Your task to perform on an android device: change alarm snooze length Image 0: 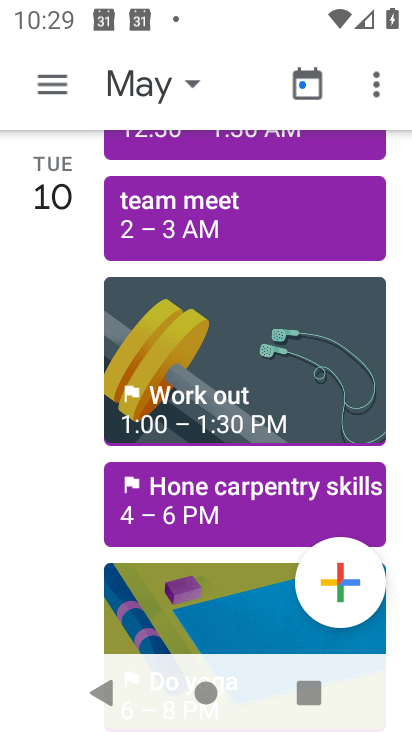
Step 0: press back button
Your task to perform on an android device: change alarm snooze length Image 1: 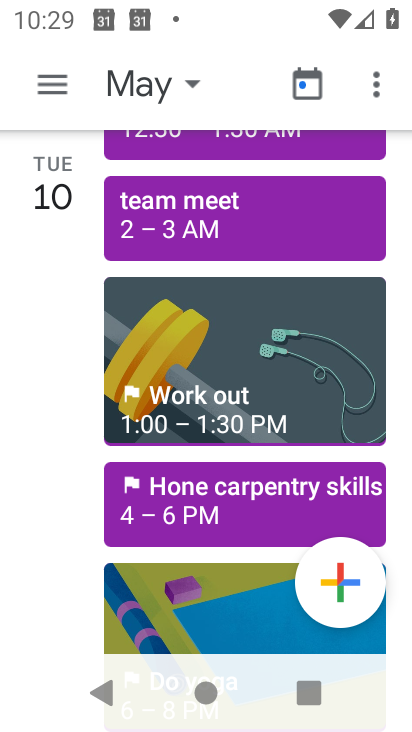
Step 1: press back button
Your task to perform on an android device: change alarm snooze length Image 2: 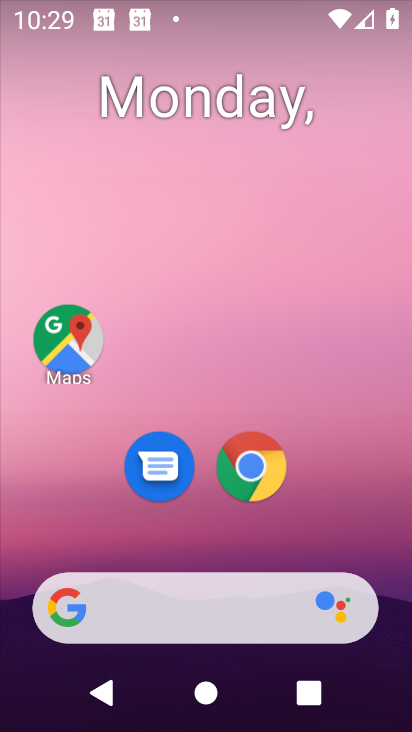
Step 2: drag from (362, 550) to (139, 10)
Your task to perform on an android device: change alarm snooze length Image 3: 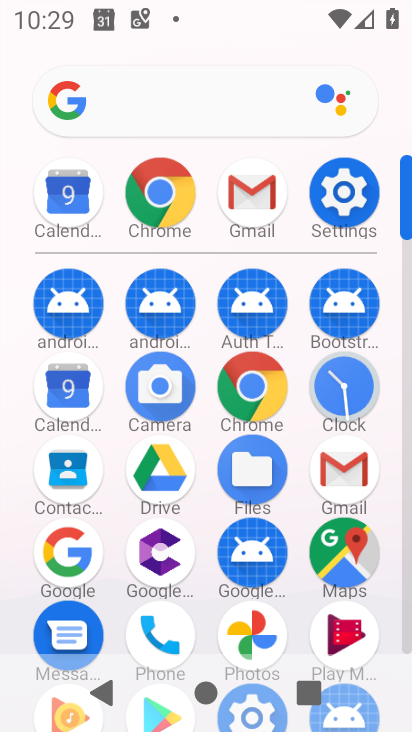
Step 3: click (347, 391)
Your task to perform on an android device: change alarm snooze length Image 4: 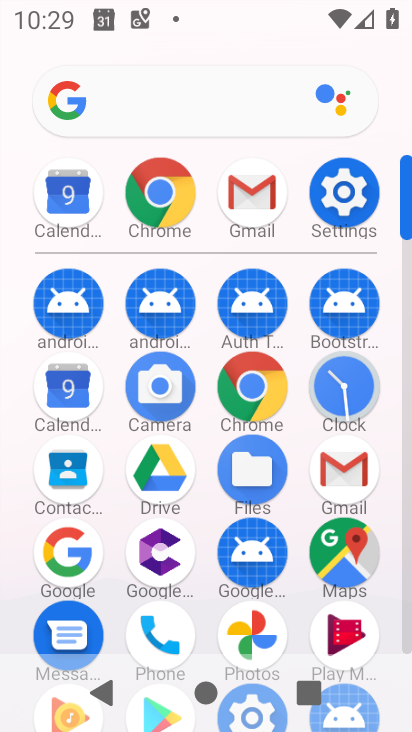
Step 4: click (347, 391)
Your task to perform on an android device: change alarm snooze length Image 5: 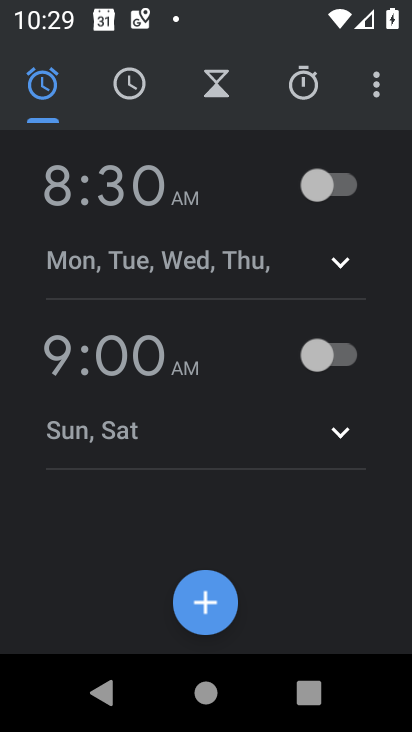
Step 5: click (381, 96)
Your task to perform on an android device: change alarm snooze length Image 6: 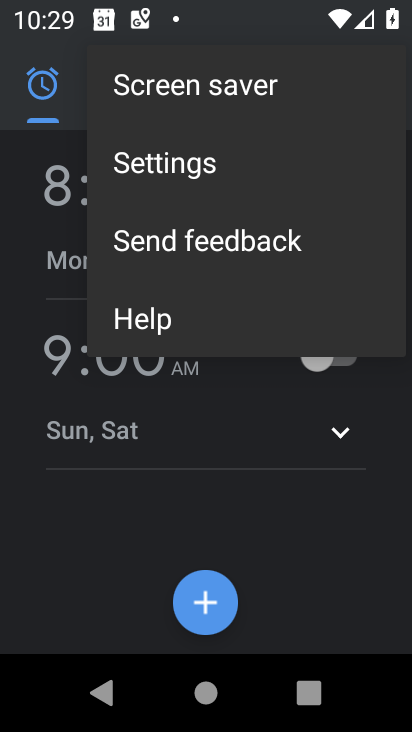
Step 6: click (163, 163)
Your task to perform on an android device: change alarm snooze length Image 7: 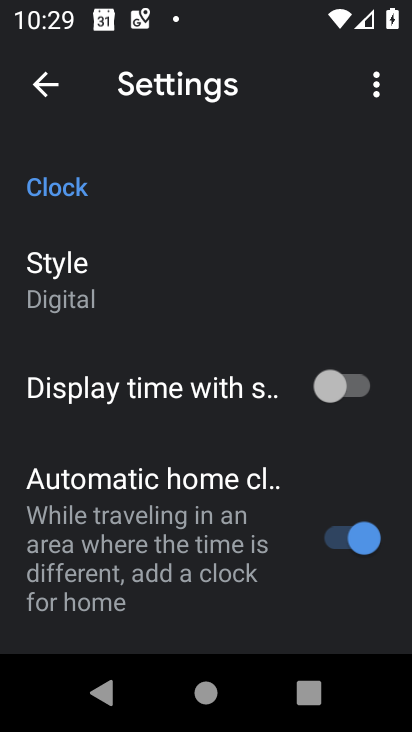
Step 7: drag from (171, 461) to (130, 122)
Your task to perform on an android device: change alarm snooze length Image 8: 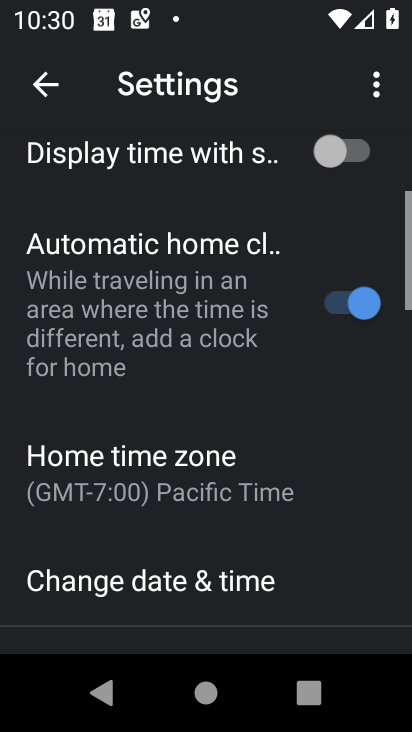
Step 8: drag from (250, 484) to (273, 174)
Your task to perform on an android device: change alarm snooze length Image 9: 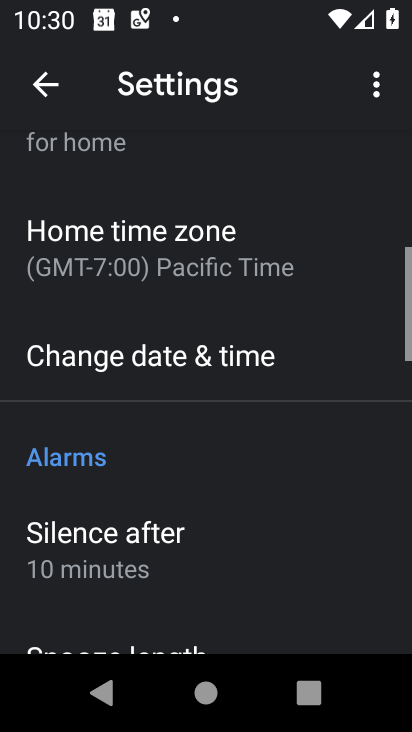
Step 9: drag from (255, 281) to (242, 0)
Your task to perform on an android device: change alarm snooze length Image 10: 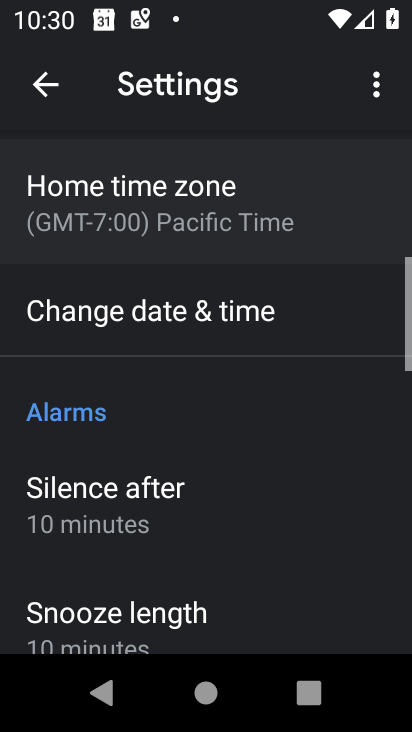
Step 10: drag from (195, 413) to (169, 147)
Your task to perform on an android device: change alarm snooze length Image 11: 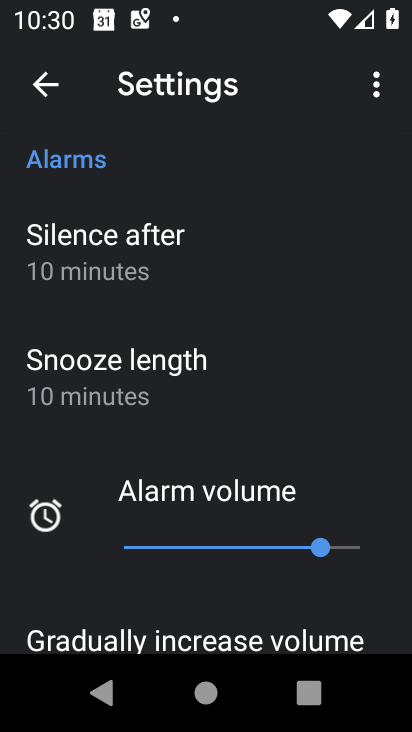
Step 11: click (105, 390)
Your task to perform on an android device: change alarm snooze length Image 12: 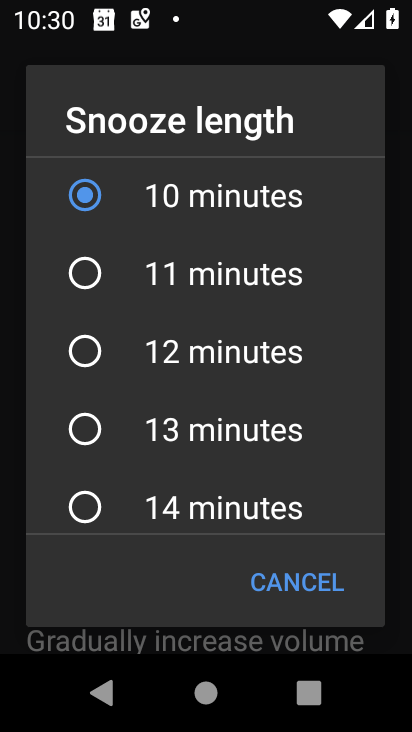
Step 12: click (76, 352)
Your task to perform on an android device: change alarm snooze length Image 13: 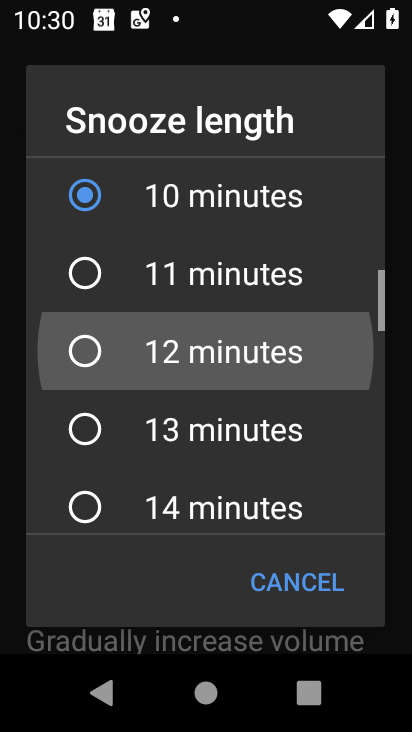
Step 13: click (86, 348)
Your task to perform on an android device: change alarm snooze length Image 14: 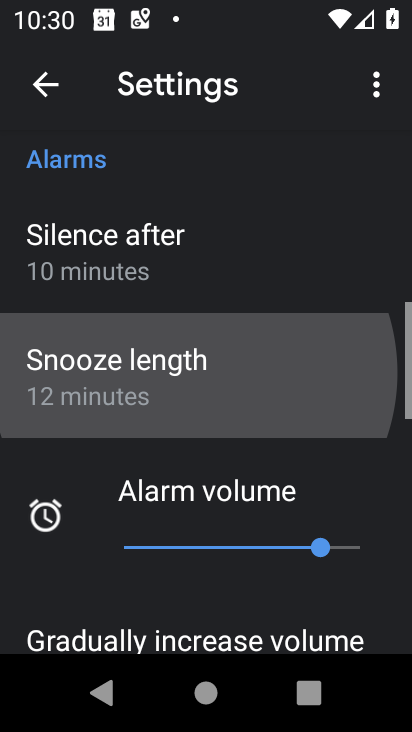
Step 14: click (88, 348)
Your task to perform on an android device: change alarm snooze length Image 15: 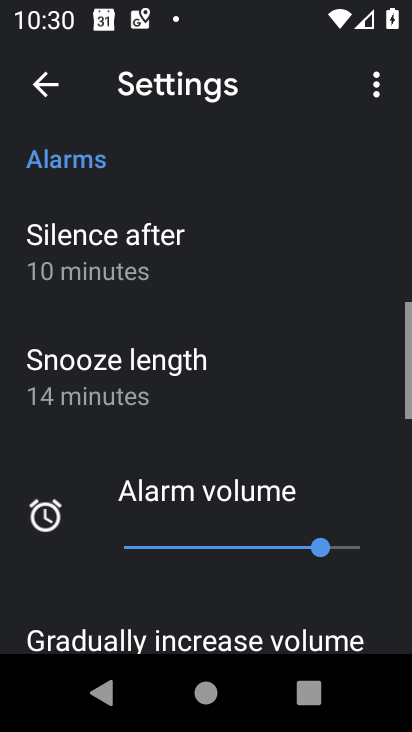
Step 15: task complete